Your task to perform on an android device: set an alarm Image 0: 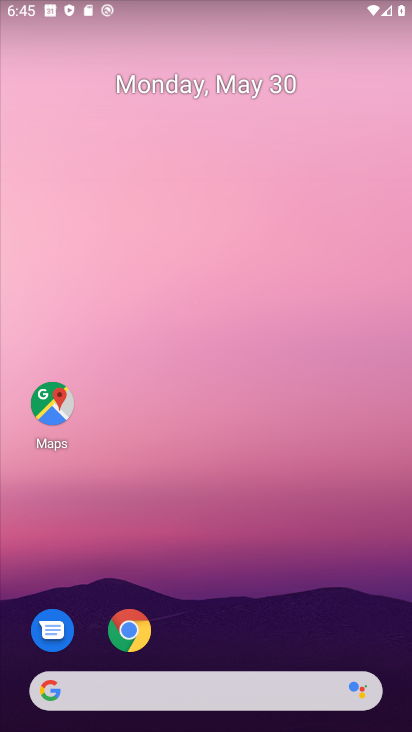
Step 0: drag from (337, 659) to (278, 44)
Your task to perform on an android device: set an alarm Image 1: 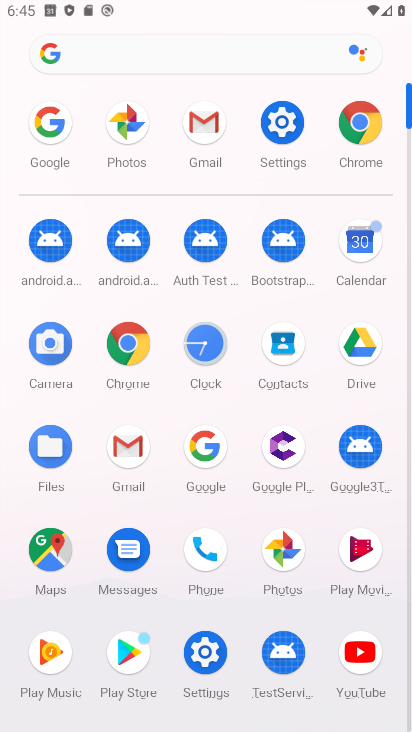
Step 1: click (194, 347)
Your task to perform on an android device: set an alarm Image 2: 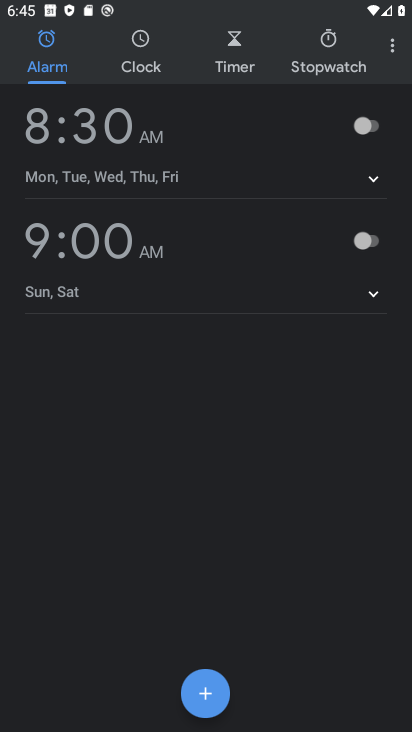
Step 2: click (369, 124)
Your task to perform on an android device: set an alarm Image 3: 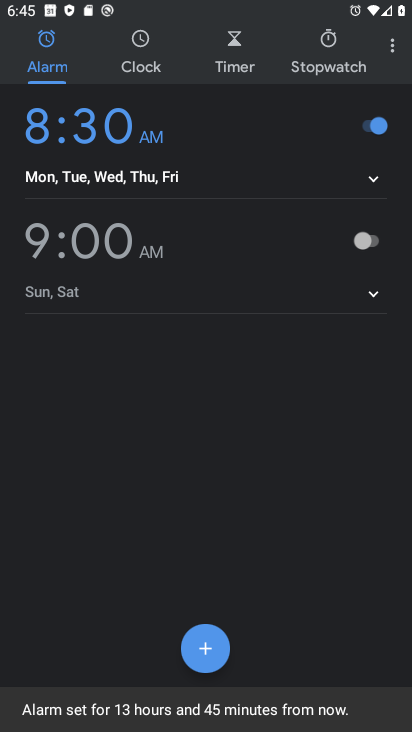
Step 3: task complete